Your task to perform on an android device: What is the speed of a bicycle? Image 0: 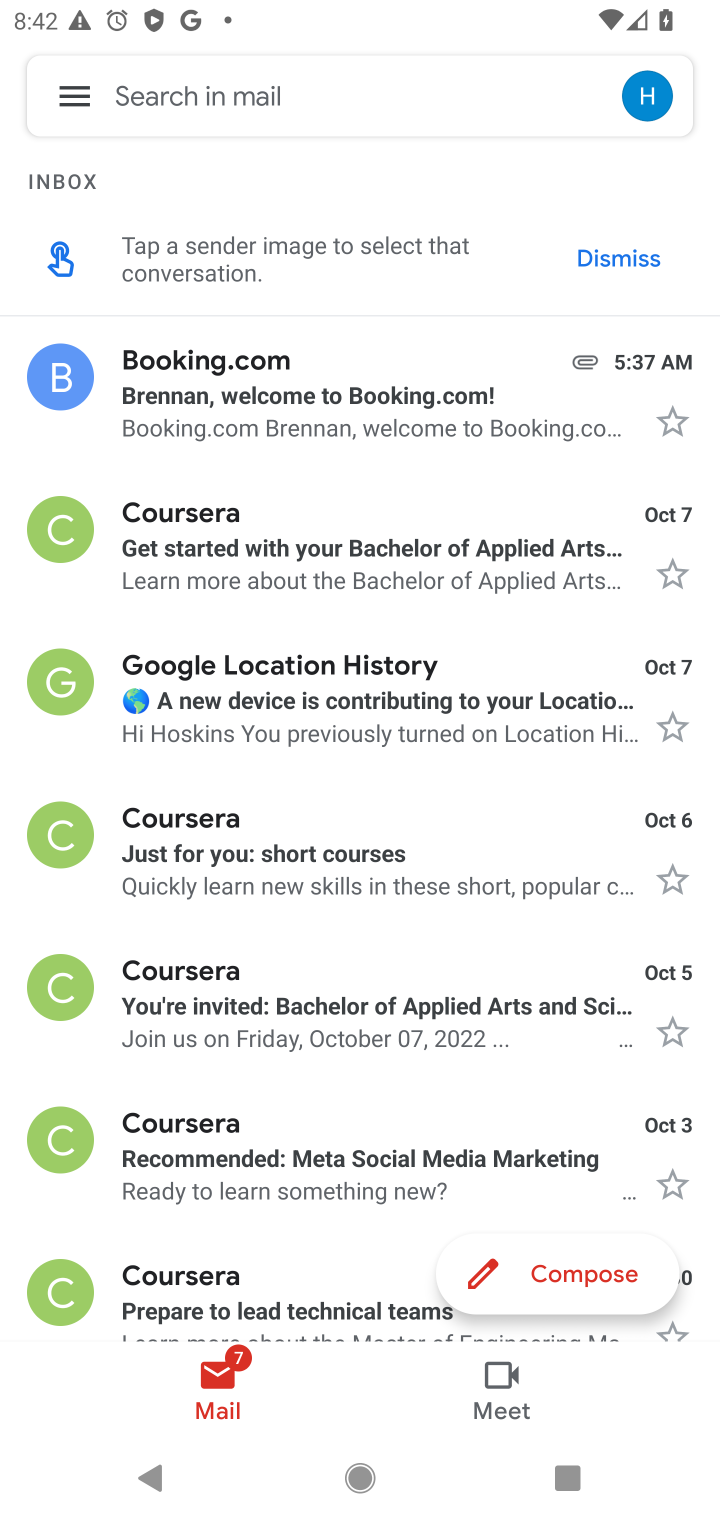
Step 0: press home button
Your task to perform on an android device: What is the speed of a bicycle? Image 1: 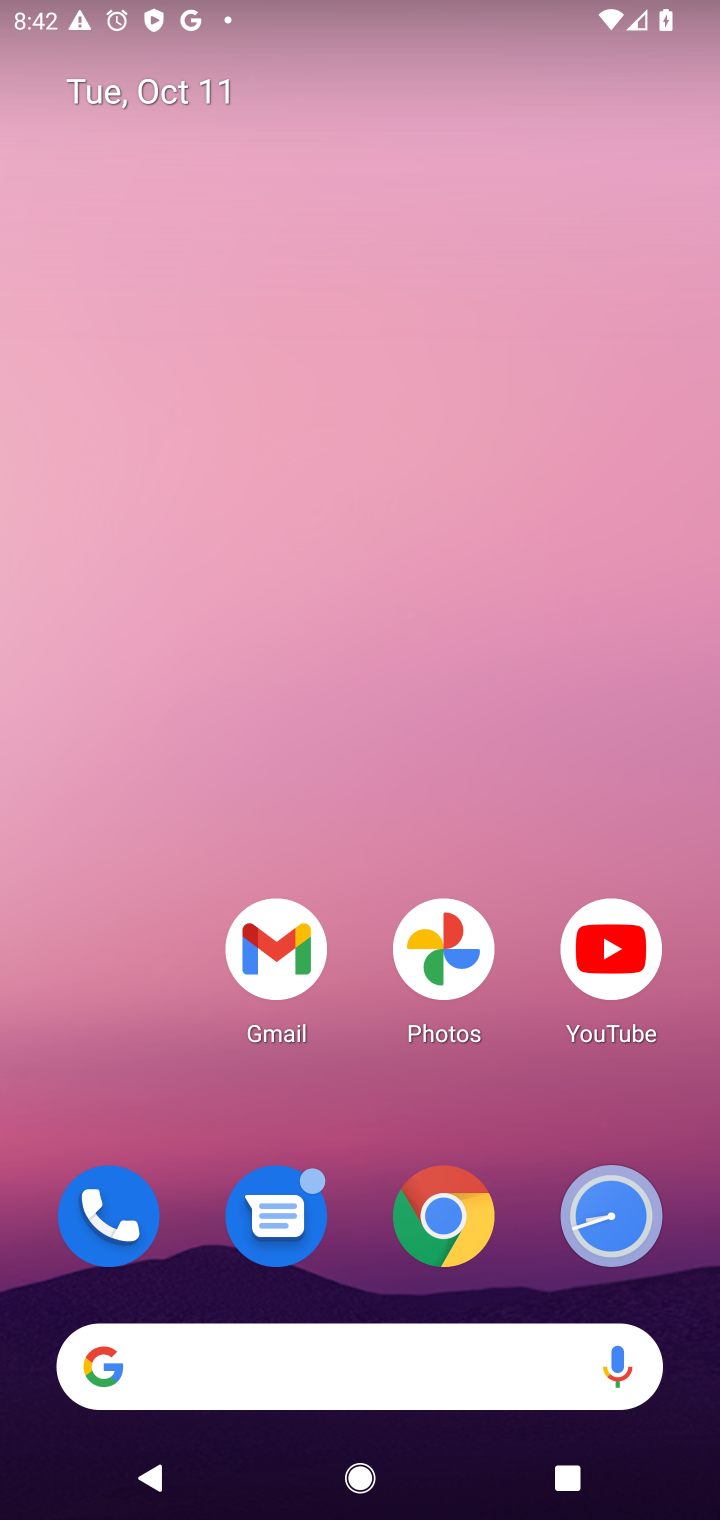
Step 1: click (444, 1216)
Your task to perform on an android device: What is the speed of a bicycle? Image 2: 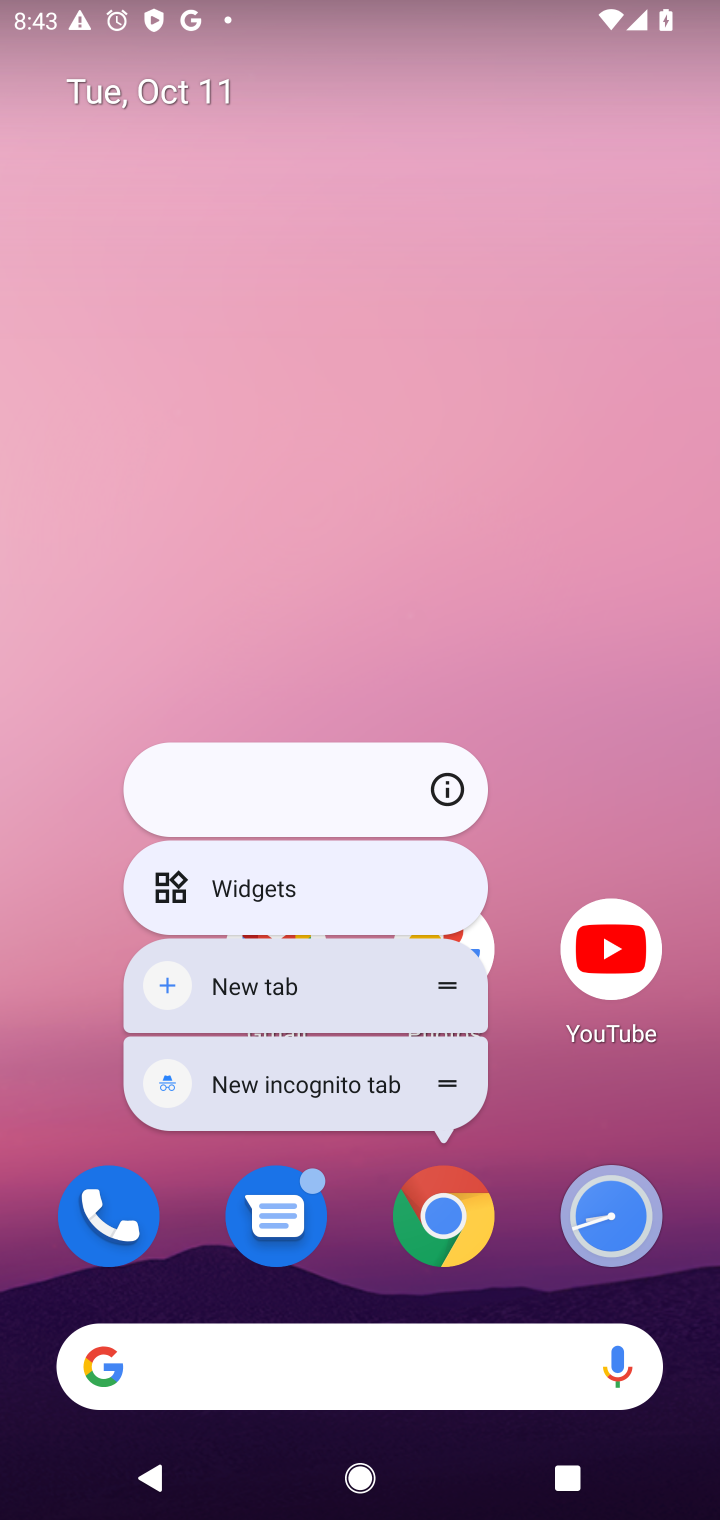
Step 2: click (435, 1225)
Your task to perform on an android device: What is the speed of a bicycle? Image 3: 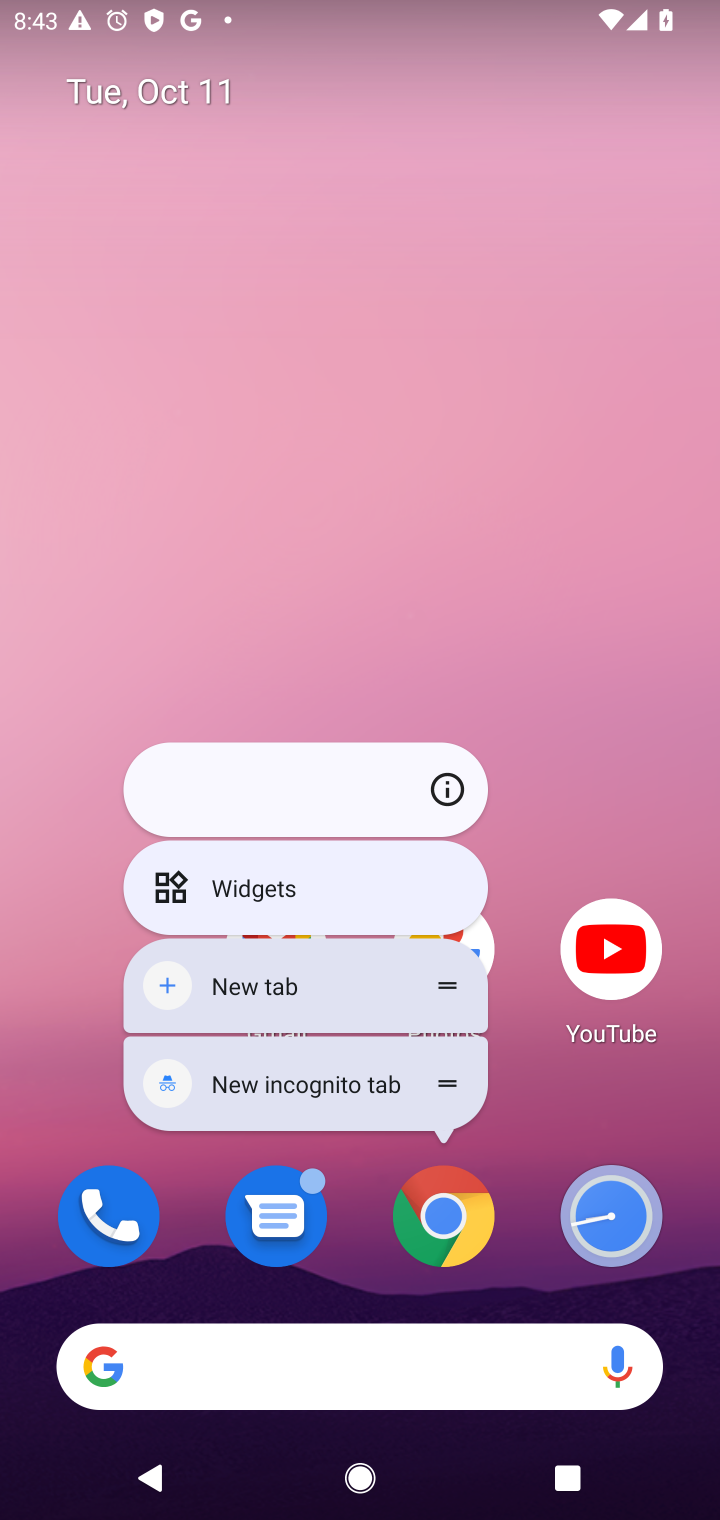
Step 3: click (435, 1225)
Your task to perform on an android device: What is the speed of a bicycle? Image 4: 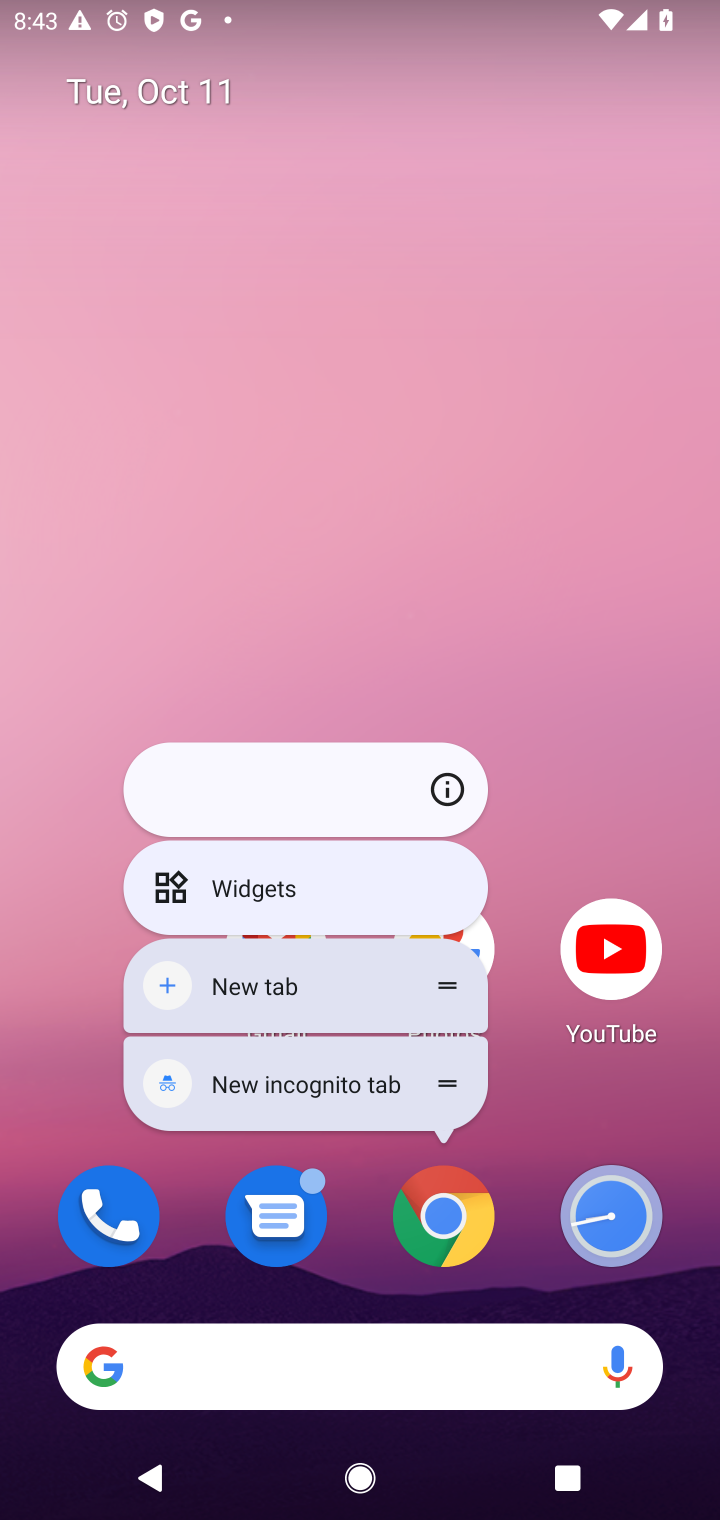
Step 4: click (431, 1206)
Your task to perform on an android device: What is the speed of a bicycle? Image 5: 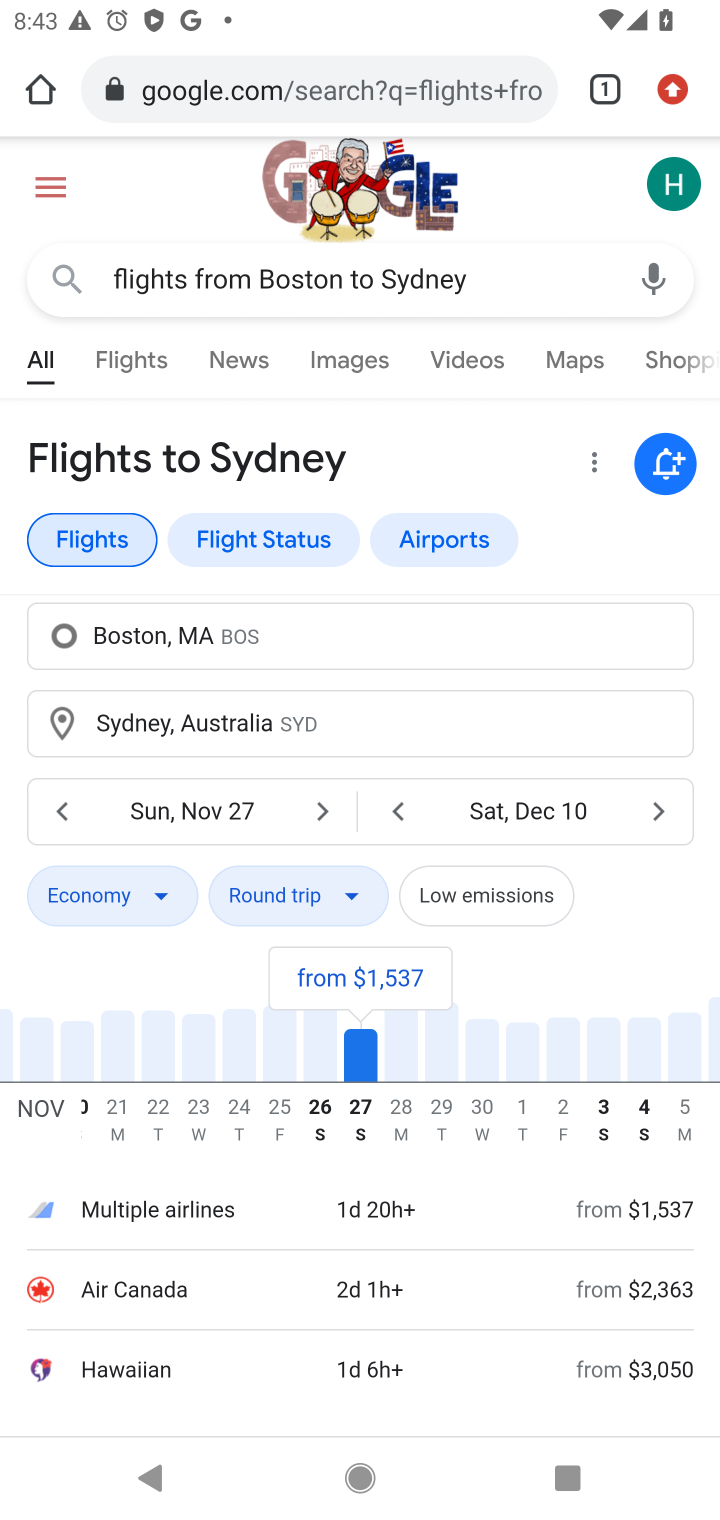
Step 5: click (488, 273)
Your task to perform on an android device: What is the speed of a bicycle? Image 6: 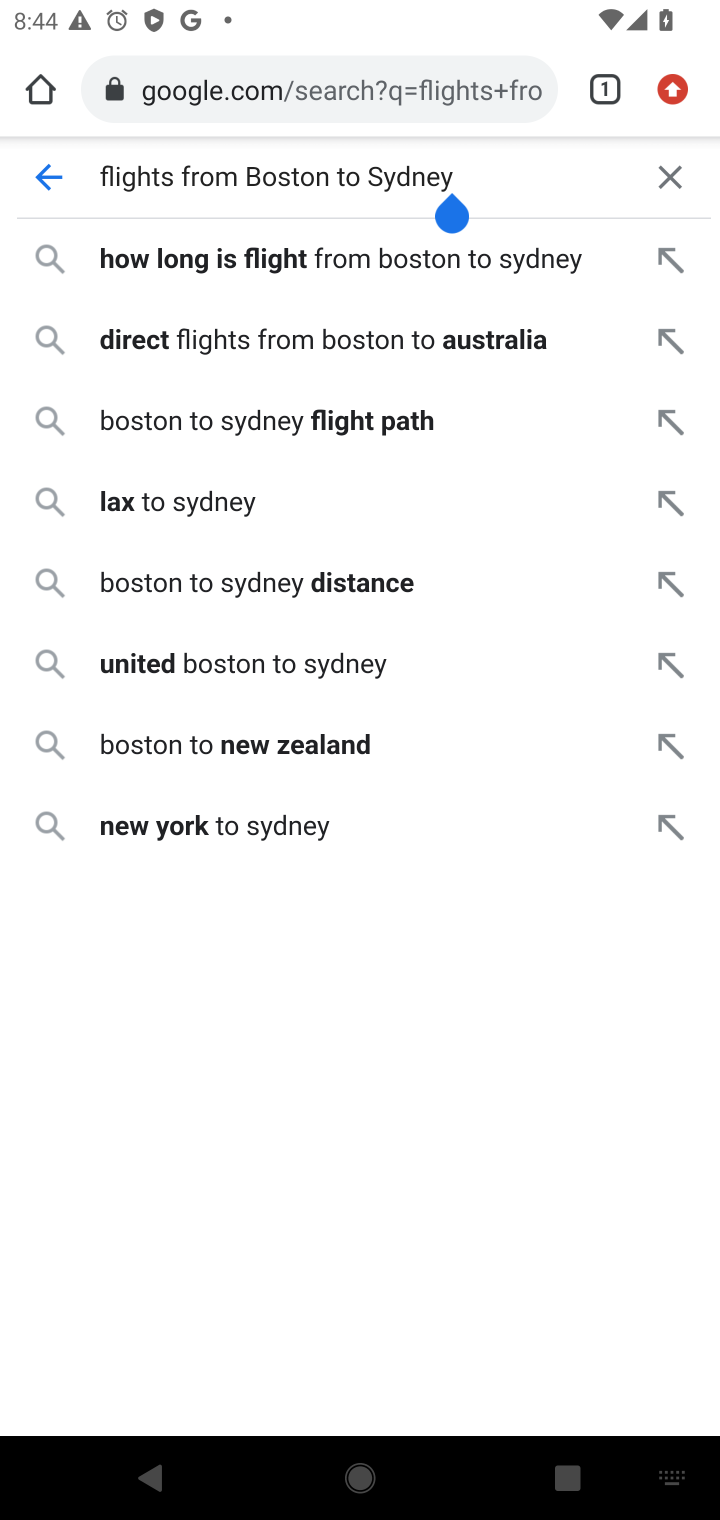
Step 6: click (675, 182)
Your task to perform on an android device: What is the speed of a bicycle? Image 7: 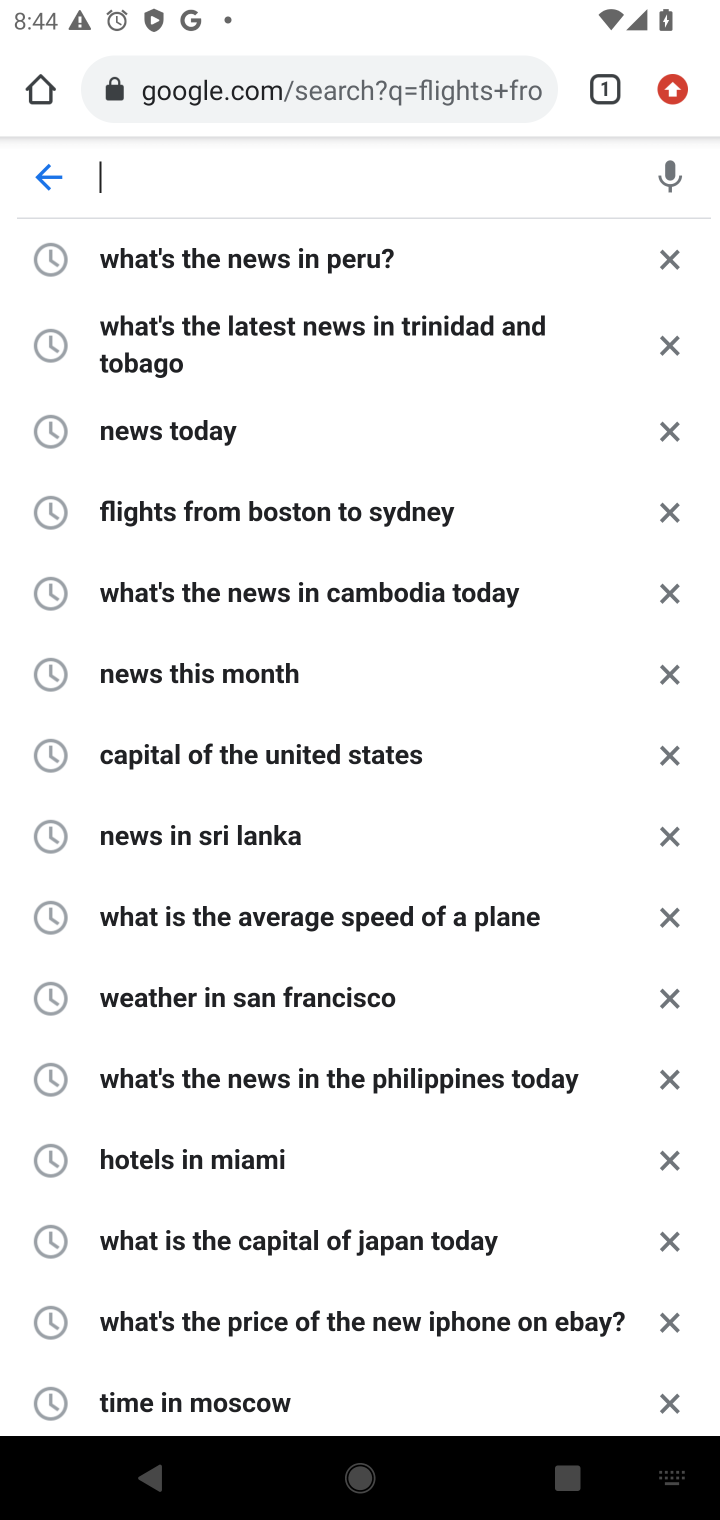
Step 7: type "What is the speed of a bicycle?"
Your task to perform on an android device: What is the speed of a bicycle? Image 8: 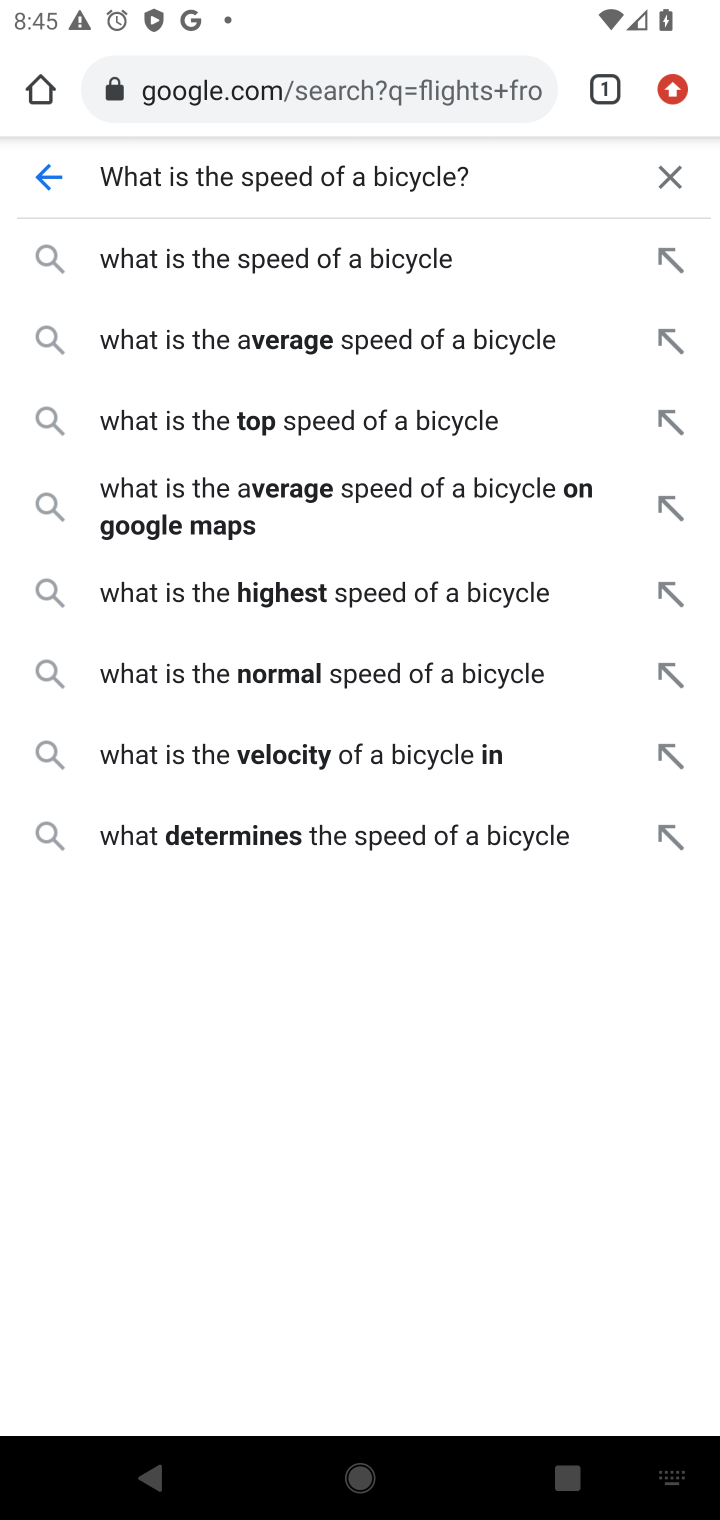
Step 8: press enter
Your task to perform on an android device: What is the speed of a bicycle? Image 9: 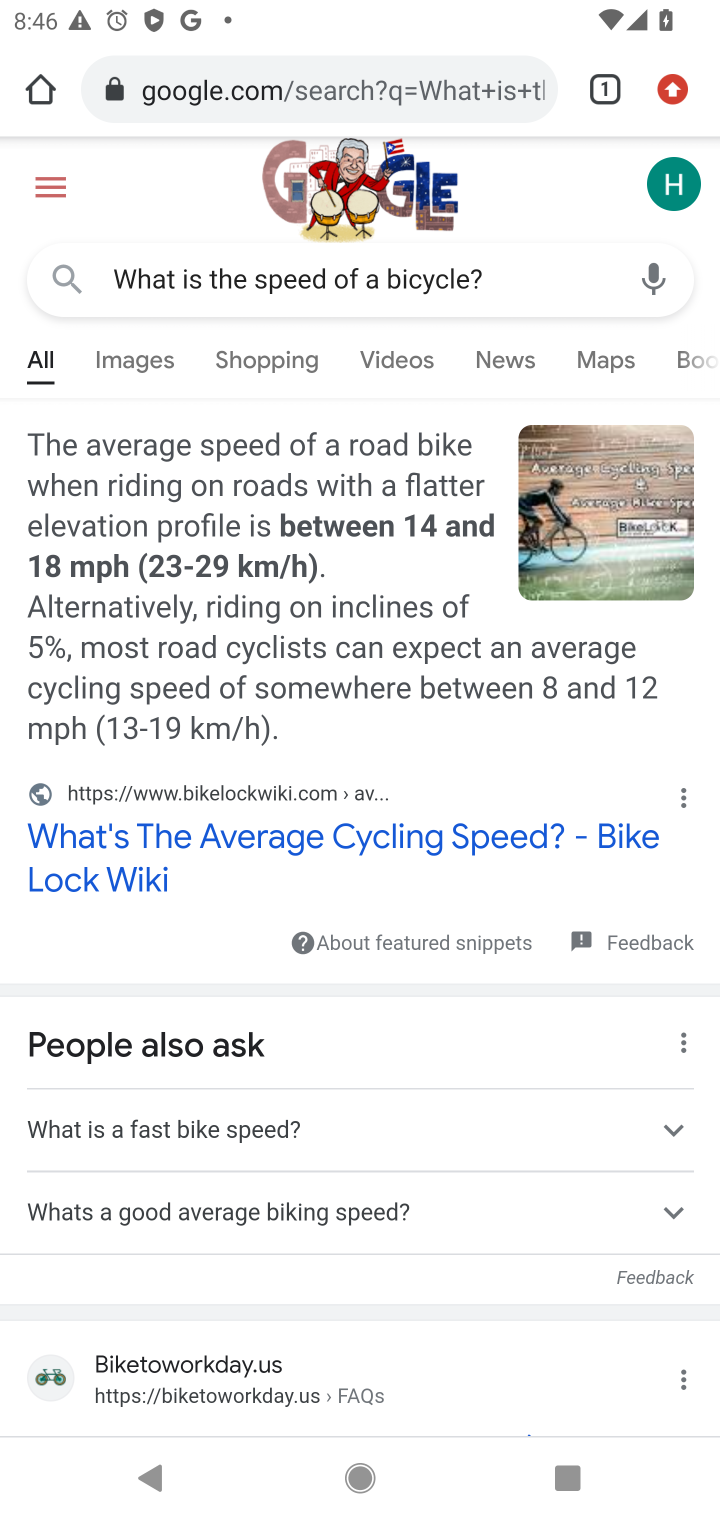
Step 9: task complete